Your task to perform on an android device: change notifications settings Image 0: 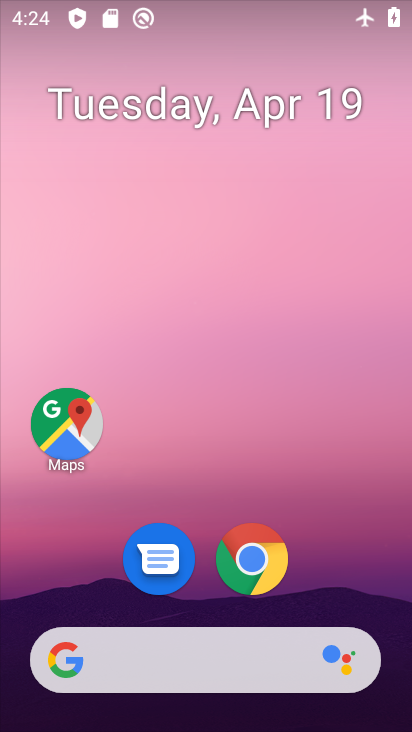
Step 0: drag from (374, 567) to (25, 61)
Your task to perform on an android device: change notifications settings Image 1: 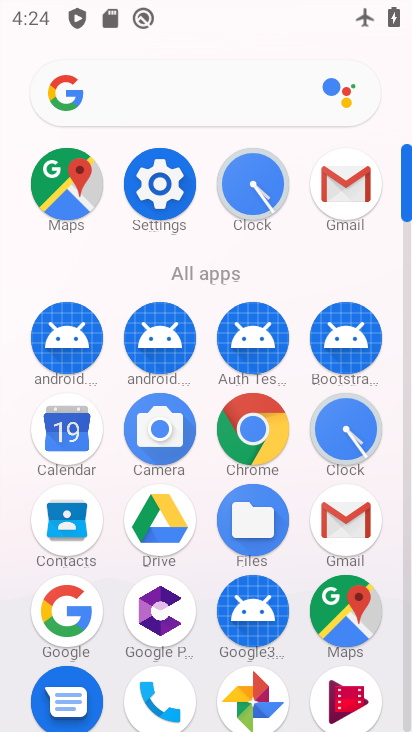
Step 1: click (141, 242)
Your task to perform on an android device: change notifications settings Image 2: 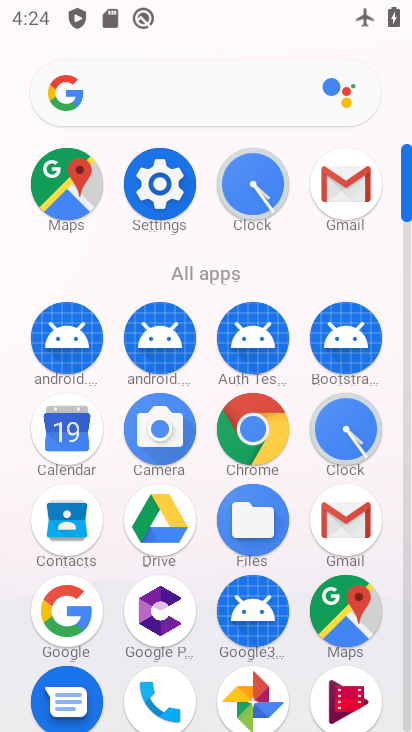
Step 2: click (174, 228)
Your task to perform on an android device: change notifications settings Image 3: 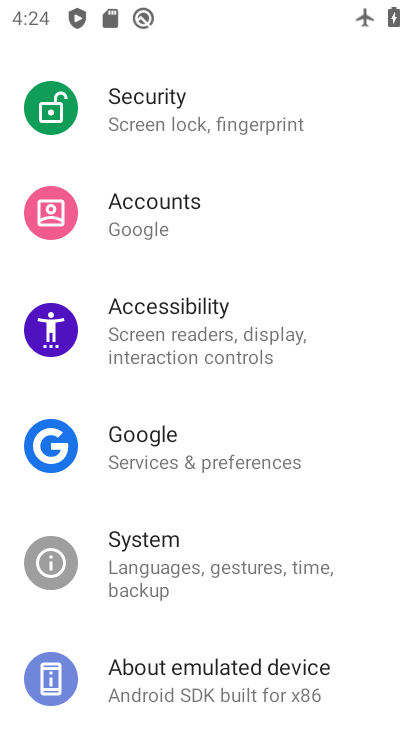
Step 3: drag from (190, 544) to (161, 198)
Your task to perform on an android device: change notifications settings Image 4: 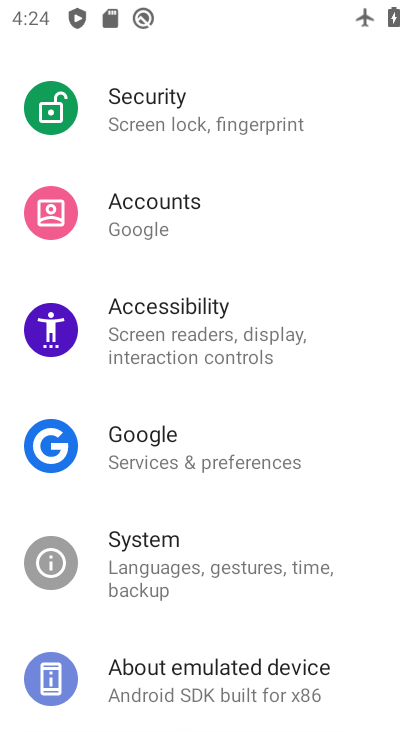
Step 4: drag from (161, 198) to (175, 696)
Your task to perform on an android device: change notifications settings Image 5: 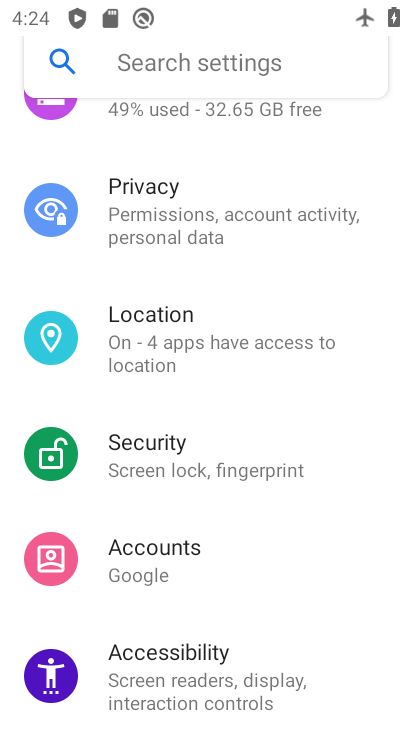
Step 5: drag from (182, 265) to (231, 649)
Your task to perform on an android device: change notifications settings Image 6: 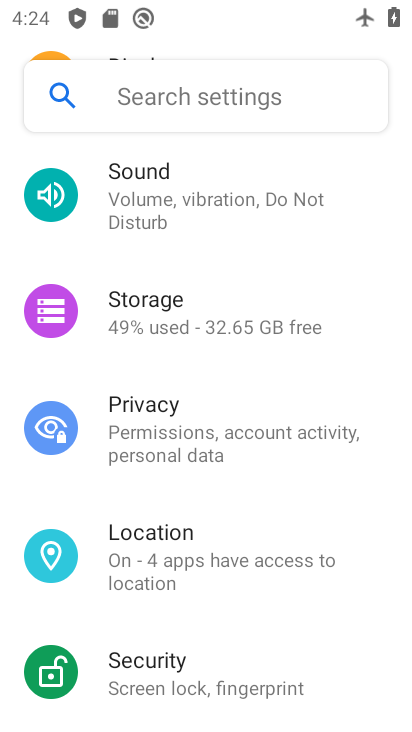
Step 6: drag from (202, 205) to (201, 534)
Your task to perform on an android device: change notifications settings Image 7: 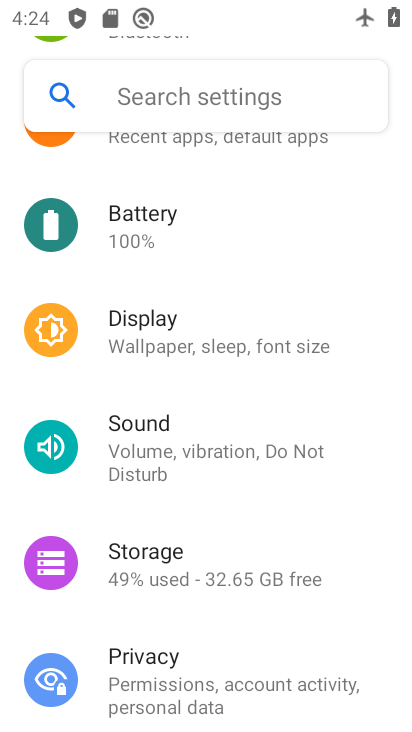
Step 7: drag from (178, 283) to (205, 687)
Your task to perform on an android device: change notifications settings Image 8: 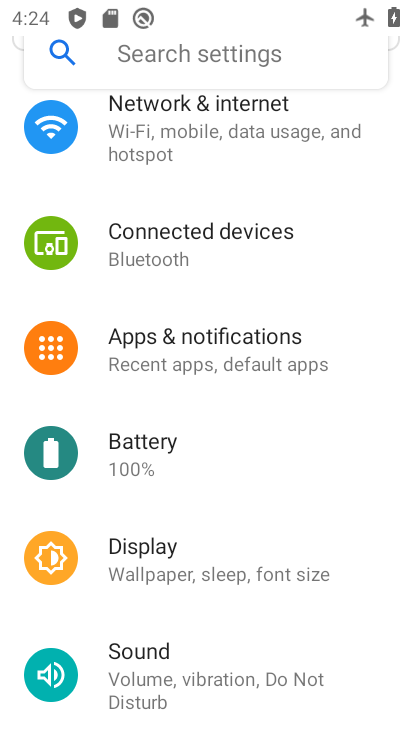
Step 8: click (194, 368)
Your task to perform on an android device: change notifications settings Image 9: 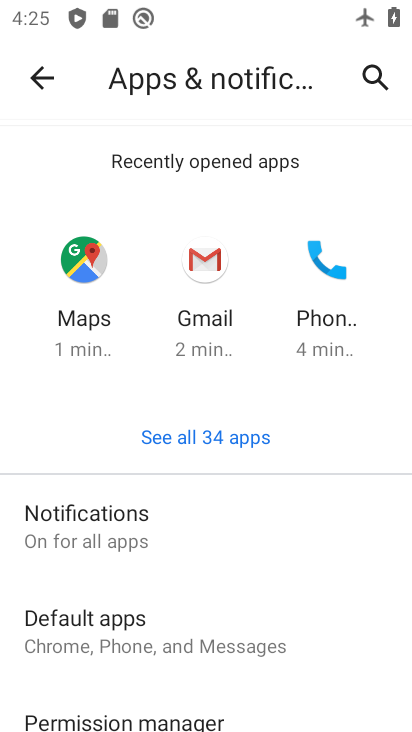
Step 9: click (233, 546)
Your task to perform on an android device: change notifications settings Image 10: 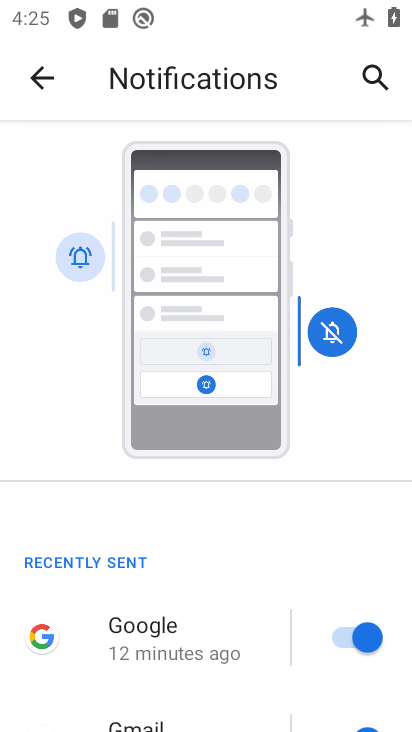
Step 10: click (331, 675)
Your task to perform on an android device: change notifications settings Image 11: 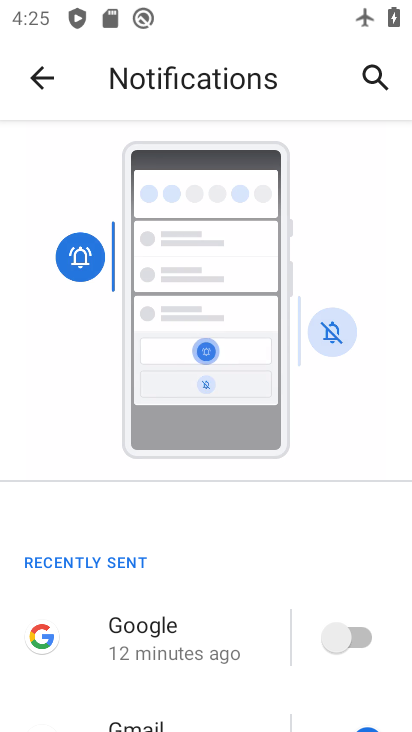
Step 11: task complete